Your task to perform on an android device: Open battery settings Image 0: 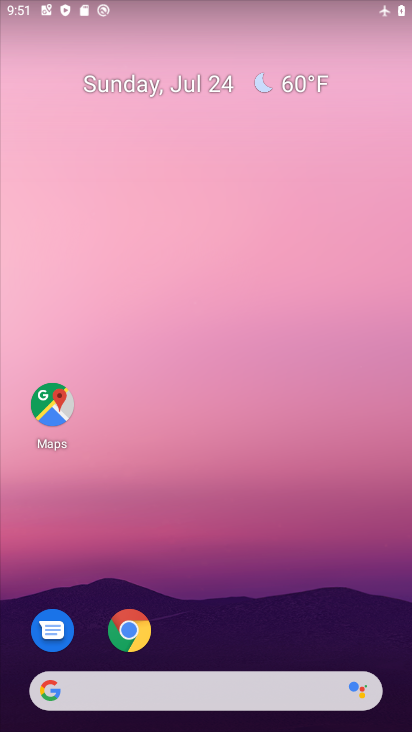
Step 0: drag from (220, 652) to (317, 0)
Your task to perform on an android device: Open battery settings Image 1: 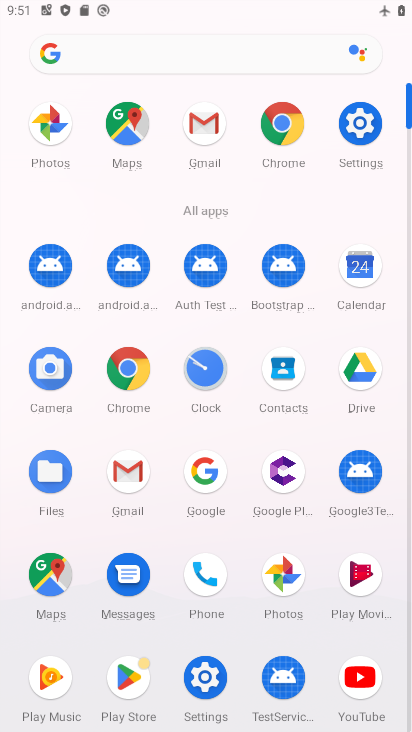
Step 1: click (358, 130)
Your task to perform on an android device: Open battery settings Image 2: 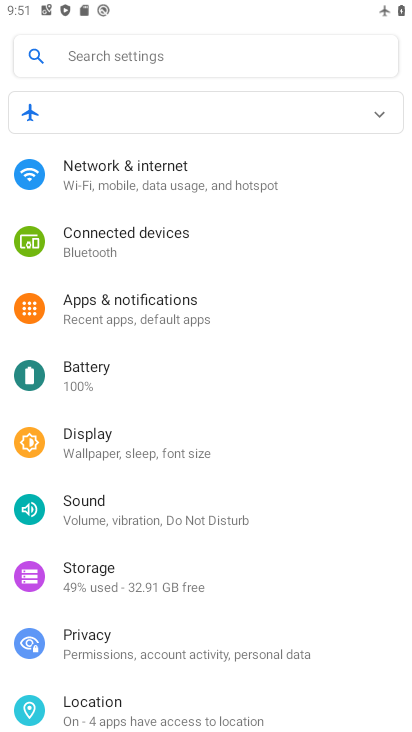
Step 2: click (96, 384)
Your task to perform on an android device: Open battery settings Image 3: 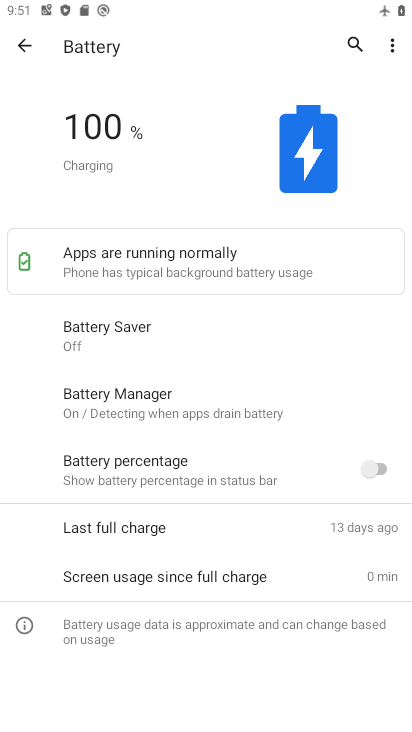
Step 3: task complete